Your task to perform on an android device: toggle priority inbox in the gmail app Image 0: 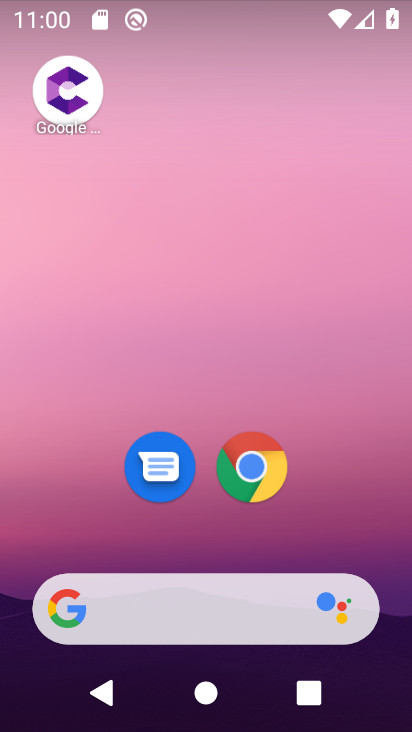
Step 0: drag from (347, 514) to (219, 43)
Your task to perform on an android device: toggle priority inbox in the gmail app Image 1: 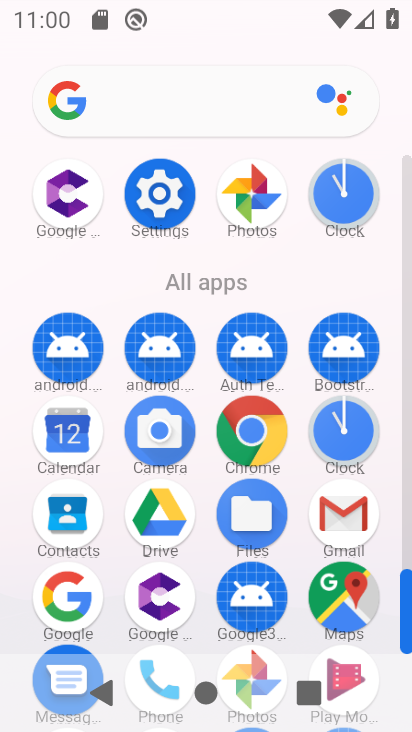
Step 1: click (340, 516)
Your task to perform on an android device: toggle priority inbox in the gmail app Image 2: 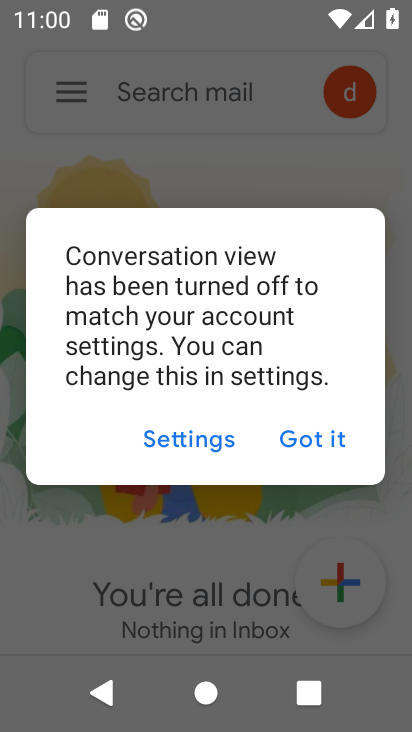
Step 2: click (312, 442)
Your task to perform on an android device: toggle priority inbox in the gmail app Image 3: 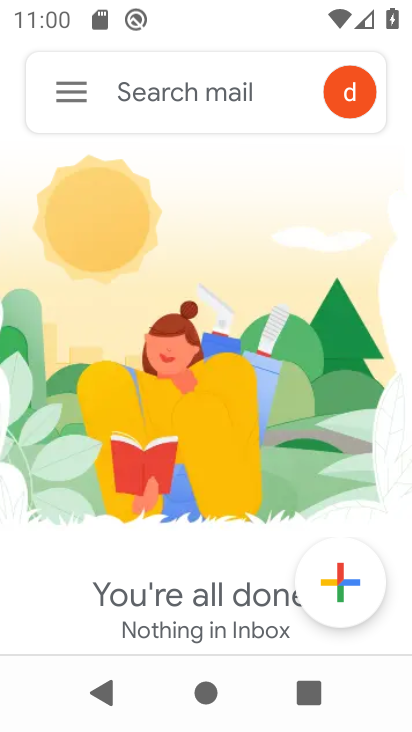
Step 3: click (72, 89)
Your task to perform on an android device: toggle priority inbox in the gmail app Image 4: 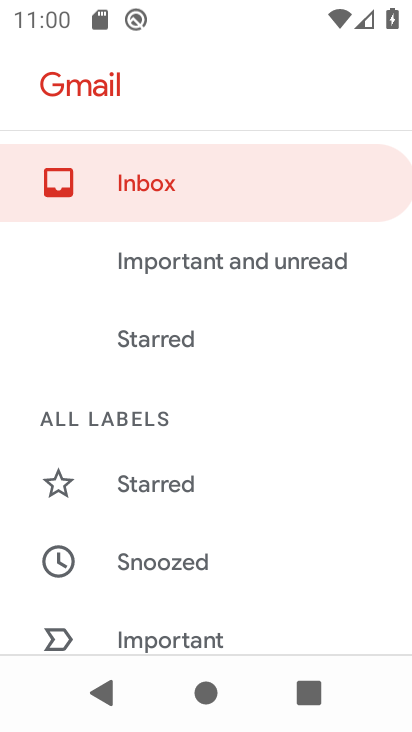
Step 4: drag from (133, 600) to (131, 133)
Your task to perform on an android device: toggle priority inbox in the gmail app Image 5: 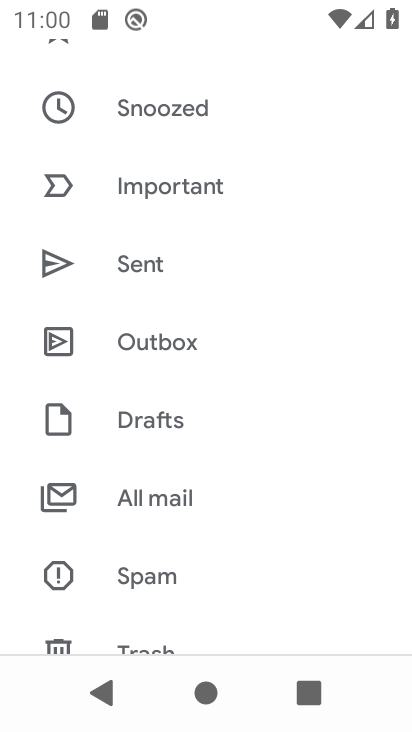
Step 5: drag from (155, 616) to (164, 159)
Your task to perform on an android device: toggle priority inbox in the gmail app Image 6: 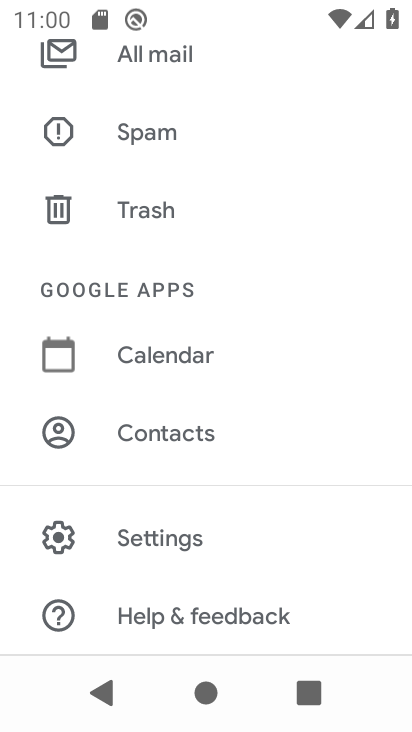
Step 6: click (152, 563)
Your task to perform on an android device: toggle priority inbox in the gmail app Image 7: 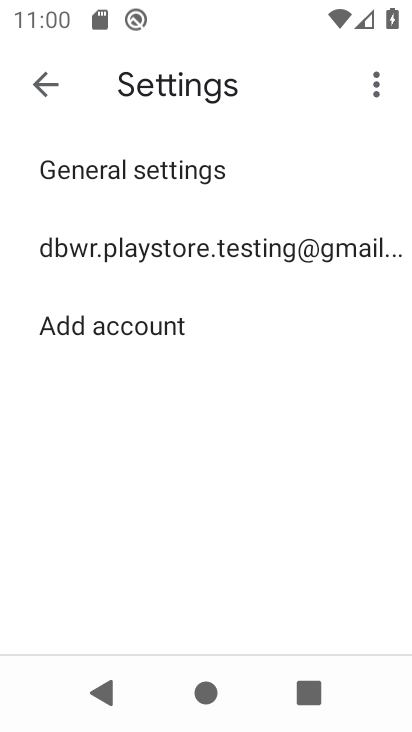
Step 7: click (111, 236)
Your task to perform on an android device: toggle priority inbox in the gmail app Image 8: 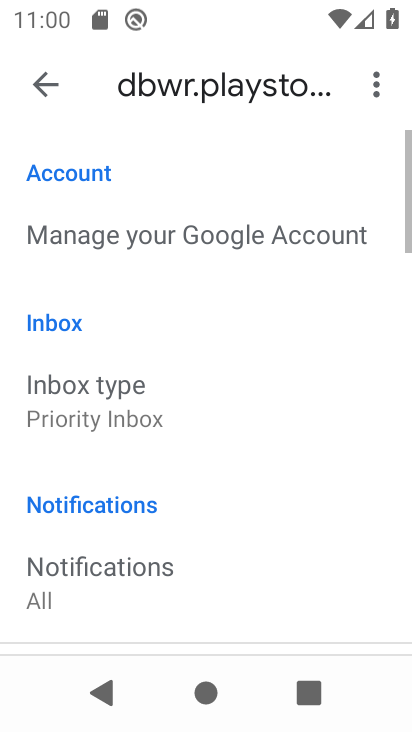
Step 8: click (103, 403)
Your task to perform on an android device: toggle priority inbox in the gmail app Image 9: 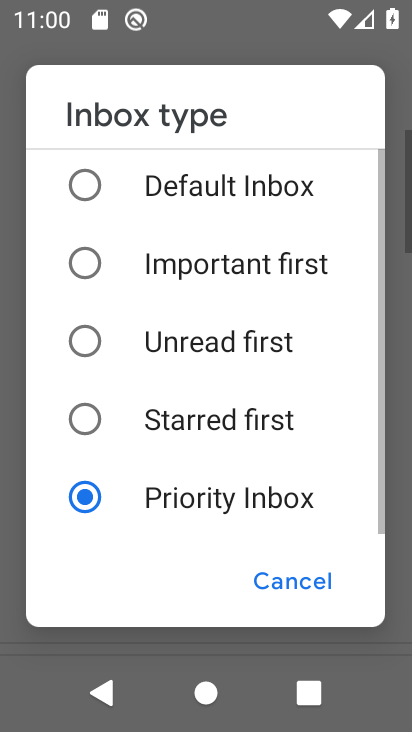
Step 9: click (176, 181)
Your task to perform on an android device: toggle priority inbox in the gmail app Image 10: 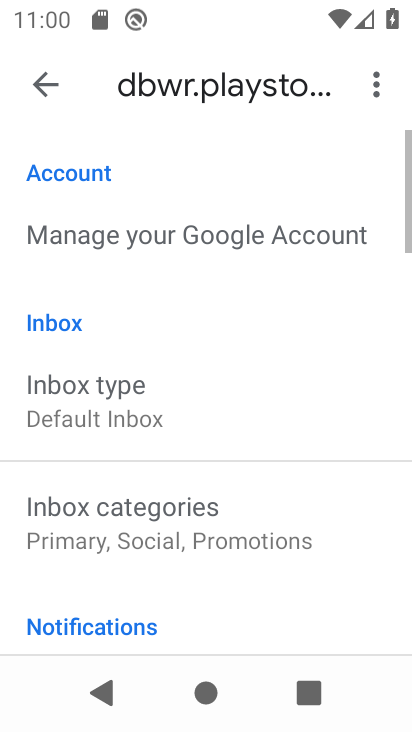
Step 10: task complete